Your task to perform on an android device: Open the Play Movies app and select the watchlist tab. Image 0: 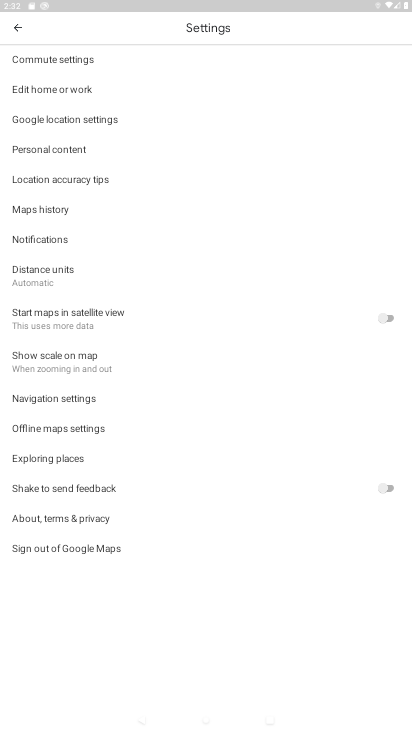
Step 0: press home button
Your task to perform on an android device: Open the Play Movies app and select the watchlist tab. Image 1: 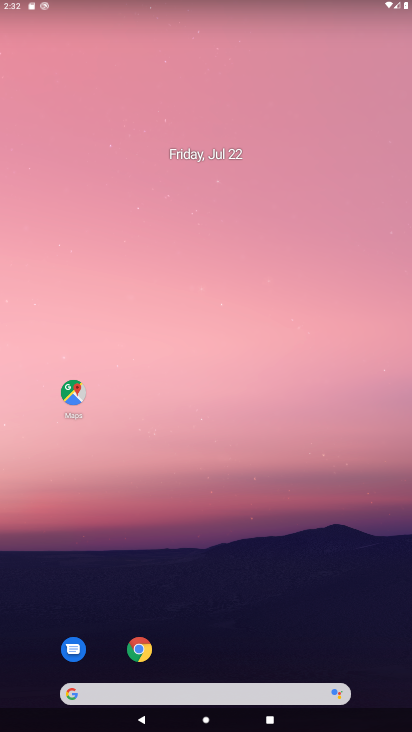
Step 1: drag from (230, 704) to (230, 325)
Your task to perform on an android device: Open the Play Movies app and select the watchlist tab. Image 2: 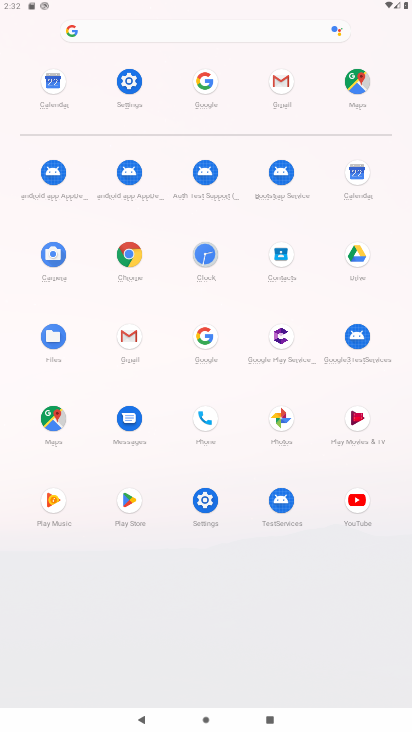
Step 2: click (356, 411)
Your task to perform on an android device: Open the Play Movies app and select the watchlist tab. Image 3: 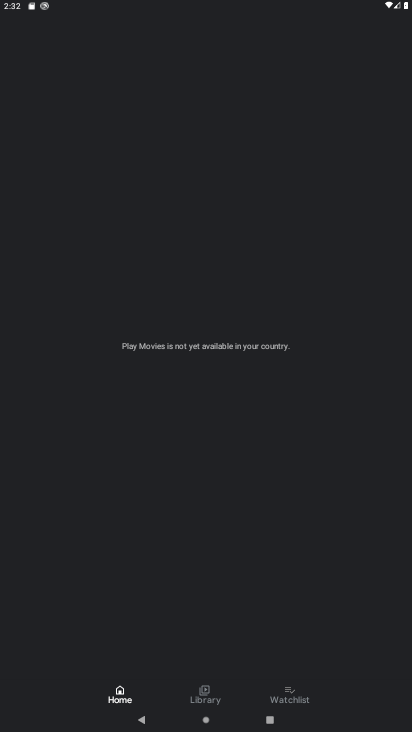
Step 3: click (301, 691)
Your task to perform on an android device: Open the Play Movies app and select the watchlist tab. Image 4: 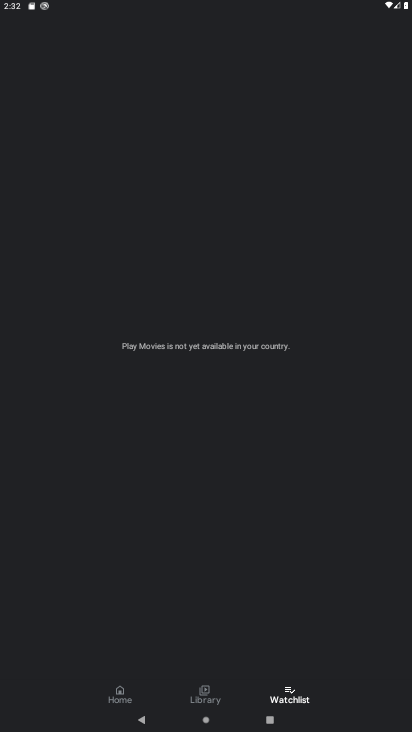
Step 4: task complete